Your task to perform on an android device: open app "Adobe Acrobat Reader" (install if not already installed) Image 0: 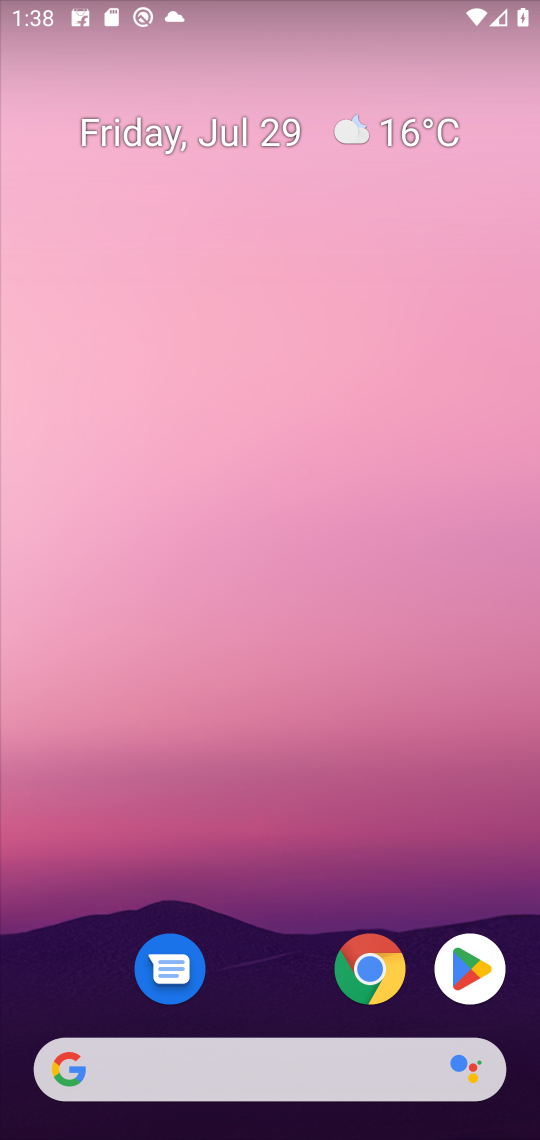
Step 0: press home button
Your task to perform on an android device: open app "Adobe Acrobat Reader" (install if not already installed) Image 1: 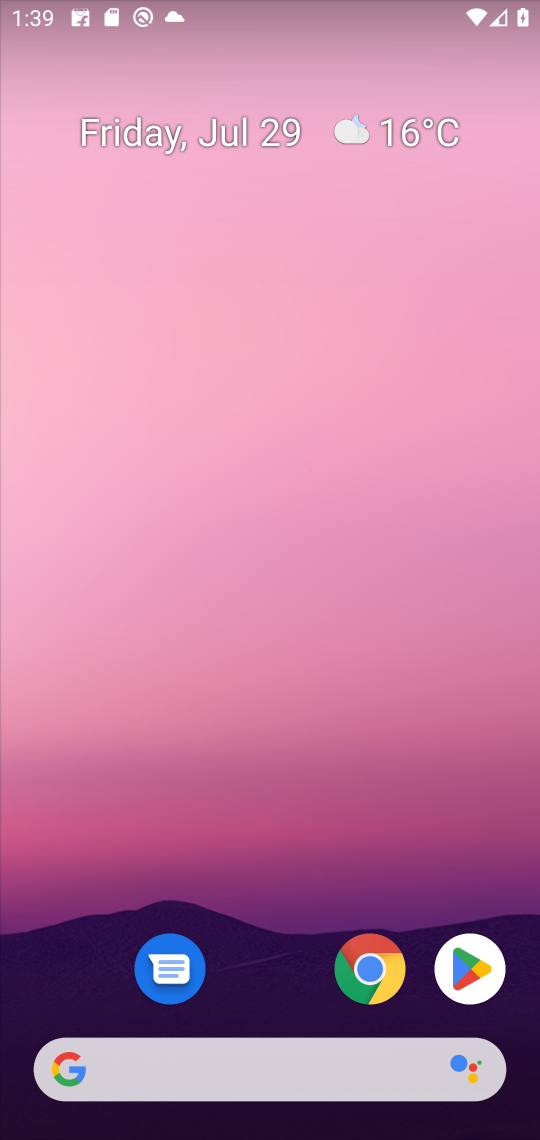
Step 1: click (481, 965)
Your task to perform on an android device: open app "Adobe Acrobat Reader" (install if not already installed) Image 2: 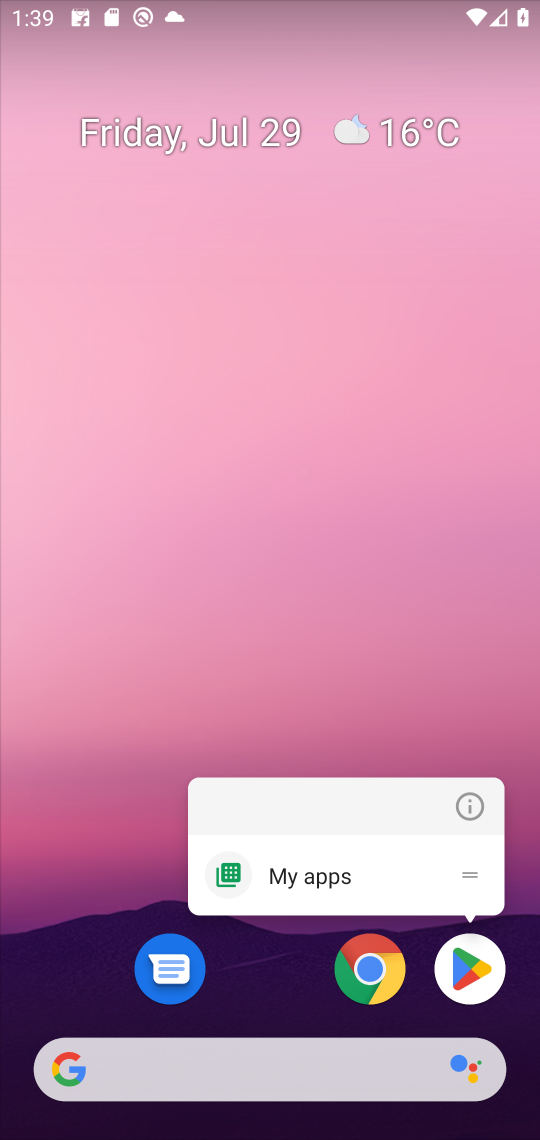
Step 2: click (477, 975)
Your task to perform on an android device: open app "Adobe Acrobat Reader" (install if not already installed) Image 3: 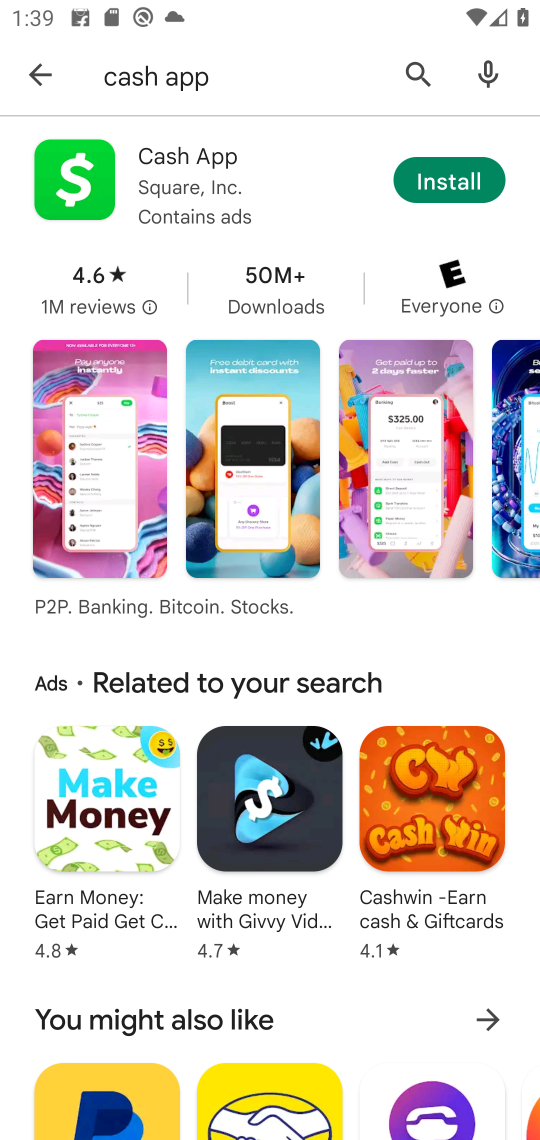
Step 3: click (403, 66)
Your task to perform on an android device: open app "Adobe Acrobat Reader" (install if not already installed) Image 4: 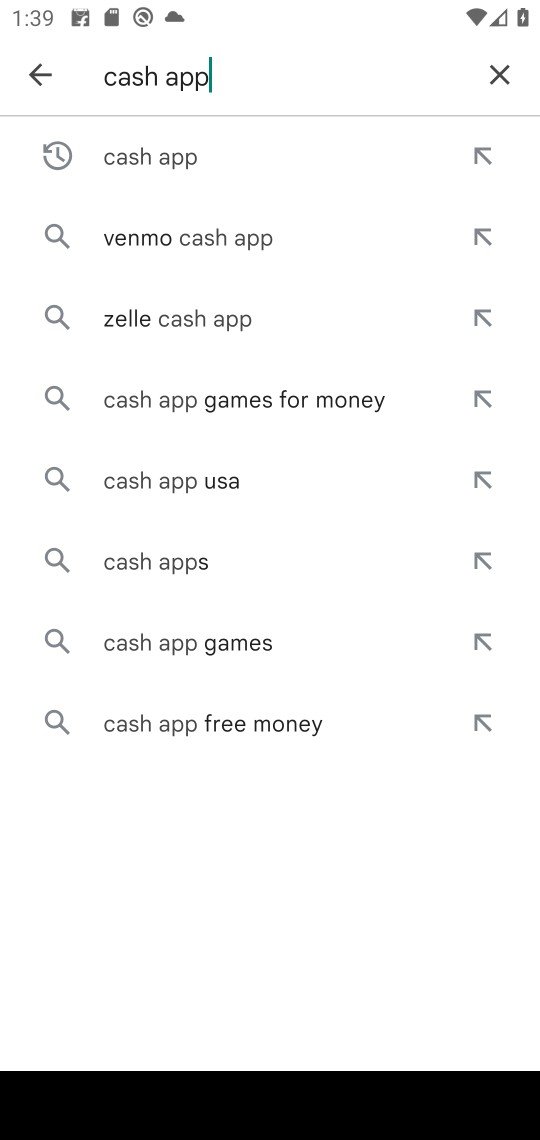
Step 4: click (491, 73)
Your task to perform on an android device: open app "Adobe Acrobat Reader" (install if not already installed) Image 5: 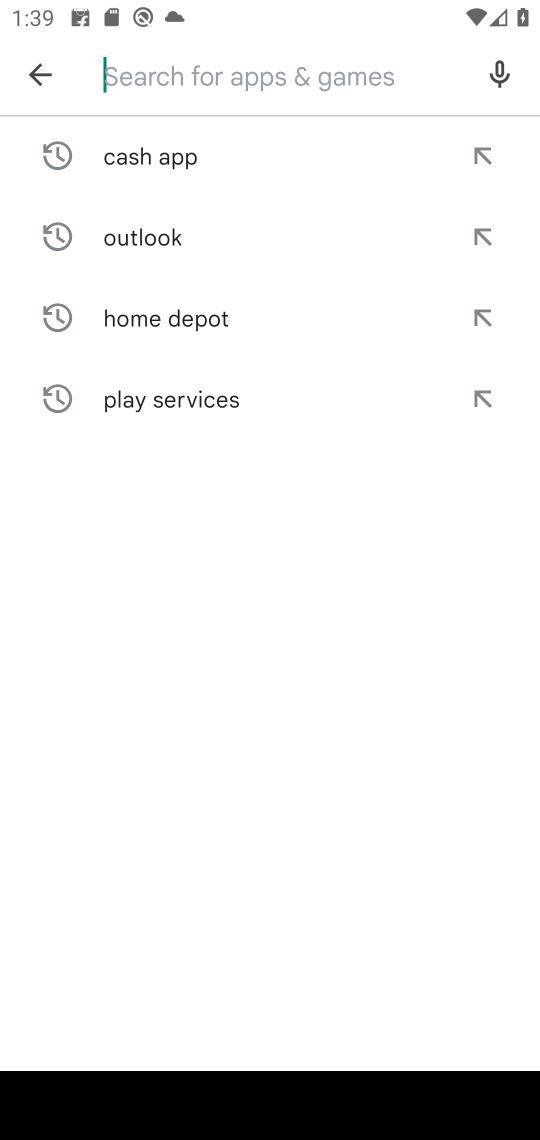
Step 5: type "adobe"
Your task to perform on an android device: open app "Adobe Acrobat Reader" (install if not already installed) Image 6: 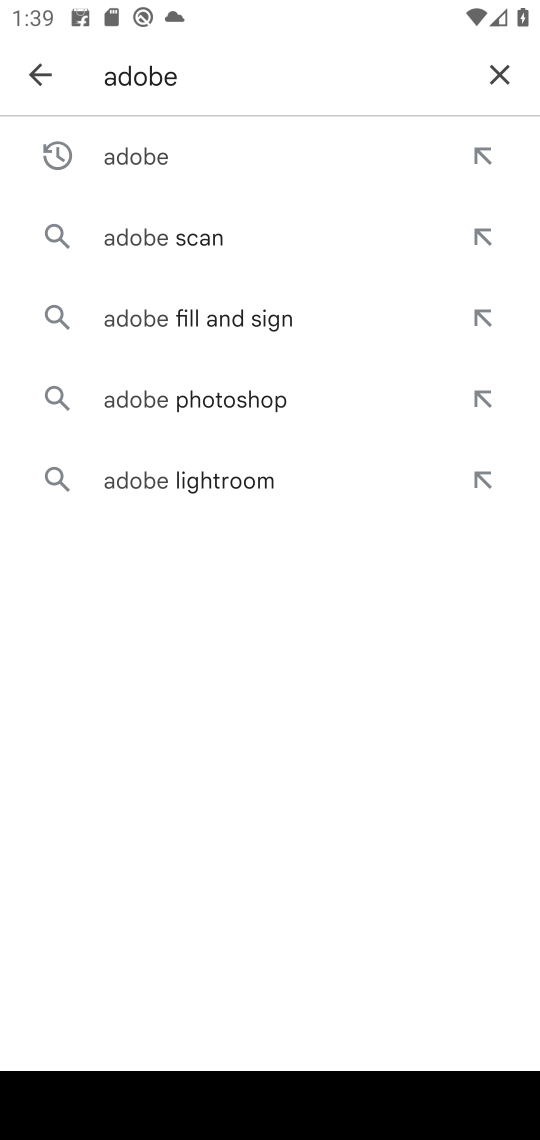
Step 6: click (127, 167)
Your task to perform on an android device: open app "Adobe Acrobat Reader" (install if not already installed) Image 7: 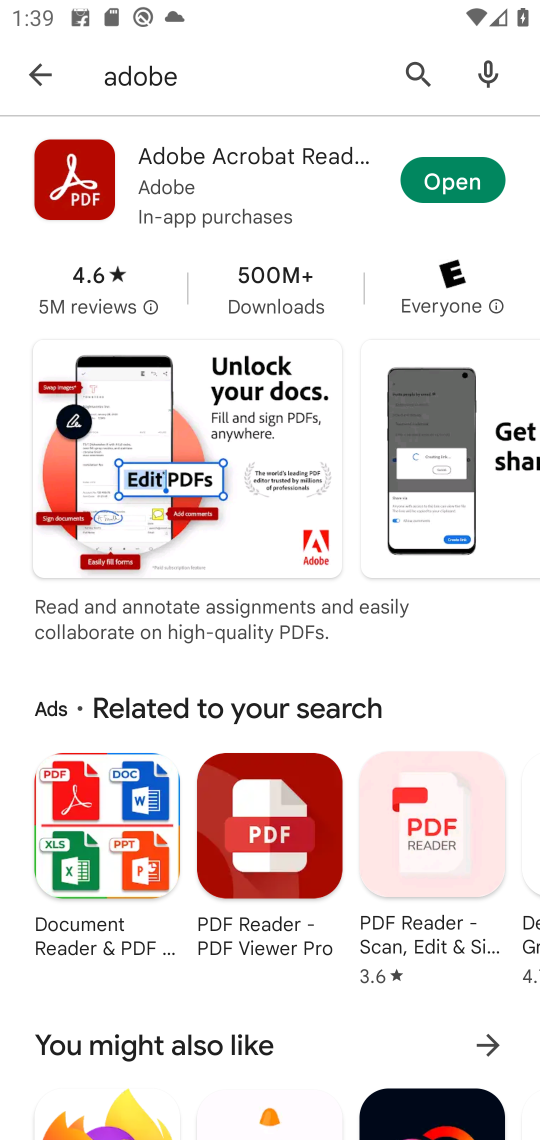
Step 7: click (448, 190)
Your task to perform on an android device: open app "Adobe Acrobat Reader" (install if not already installed) Image 8: 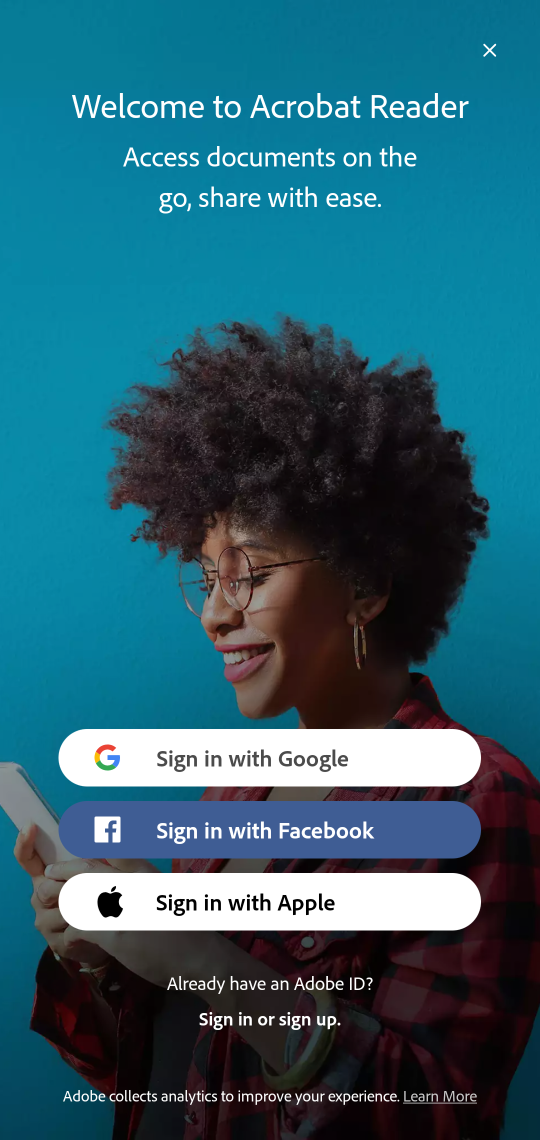
Step 8: task complete